Your task to perform on an android device: manage bookmarks in the chrome app Image 0: 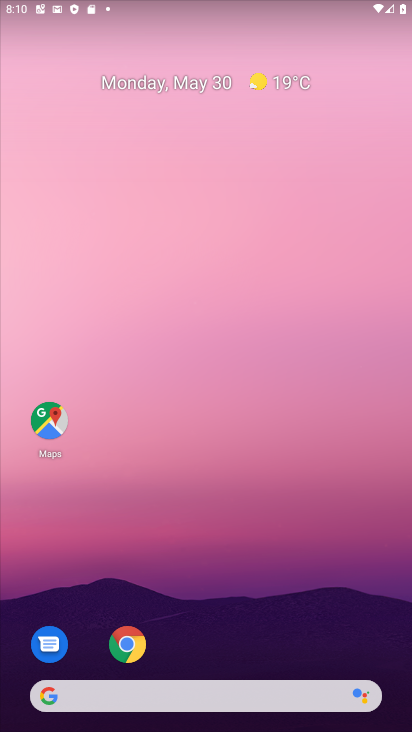
Step 0: click (232, 602)
Your task to perform on an android device: manage bookmarks in the chrome app Image 1: 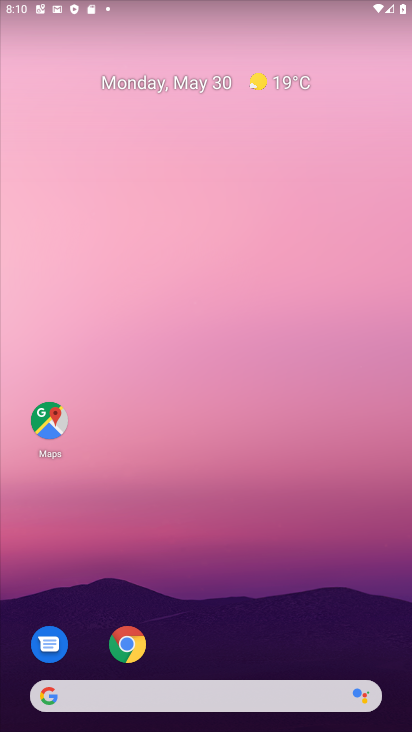
Step 1: drag from (225, 640) to (118, 2)
Your task to perform on an android device: manage bookmarks in the chrome app Image 2: 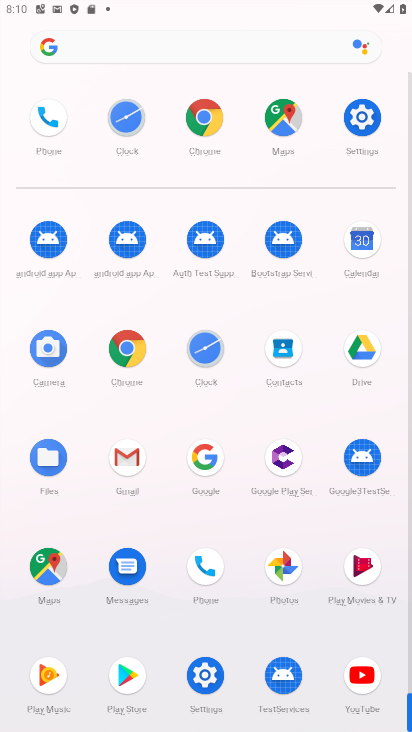
Step 2: click (130, 342)
Your task to perform on an android device: manage bookmarks in the chrome app Image 3: 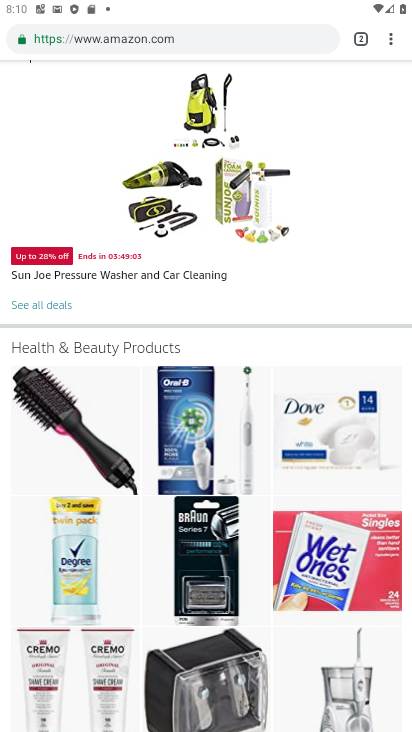
Step 3: drag from (387, 35) to (275, 162)
Your task to perform on an android device: manage bookmarks in the chrome app Image 4: 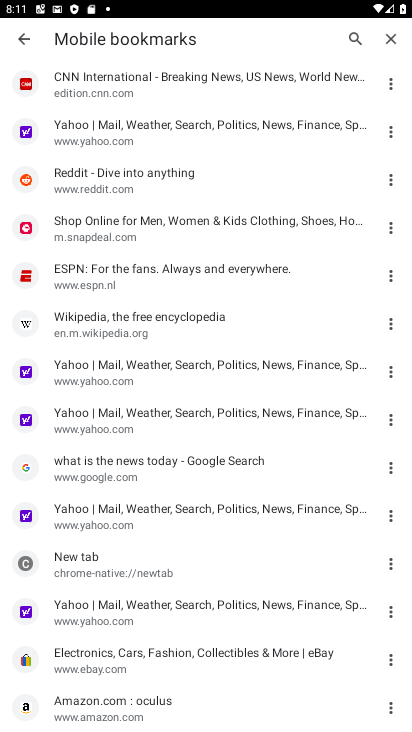
Step 4: click (389, 223)
Your task to perform on an android device: manage bookmarks in the chrome app Image 5: 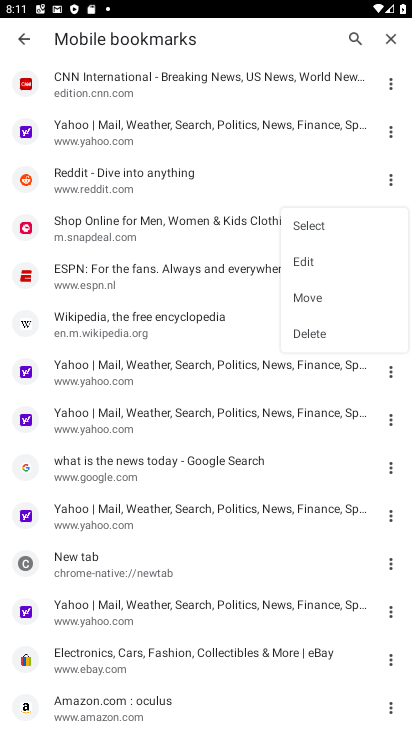
Step 5: click (313, 296)
Your task to perform on an android device: manage bookmarks in the chrome app Image 6: 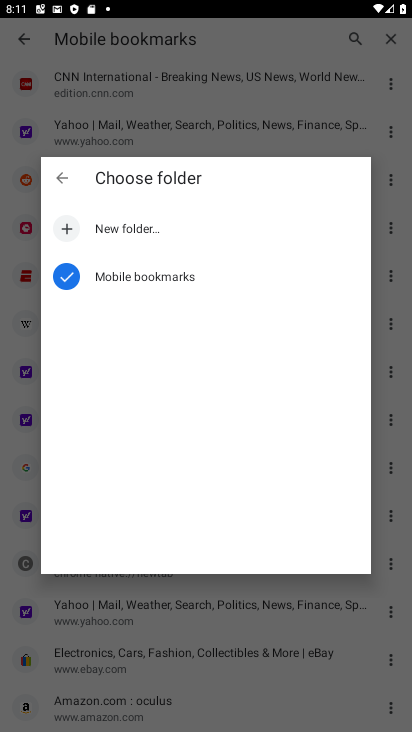
Step 6: click (59, 233)
Your task to perform on an android device: manage bookmarks in the chrome app Image 7: 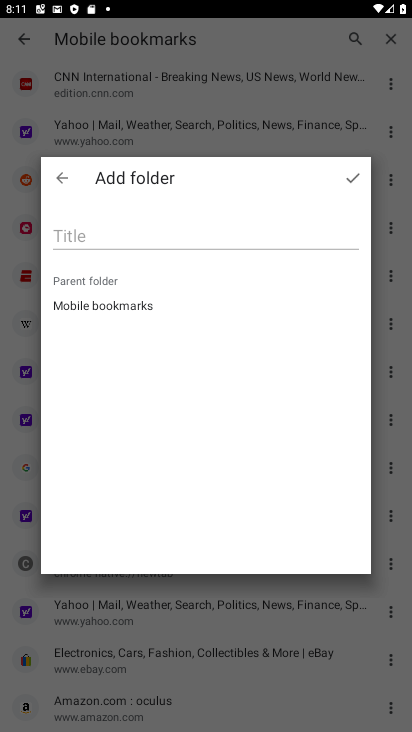
Step 7: click (159, 236)
Your task to perform on an android device: manage bookmarks in the chrome app Image 8: 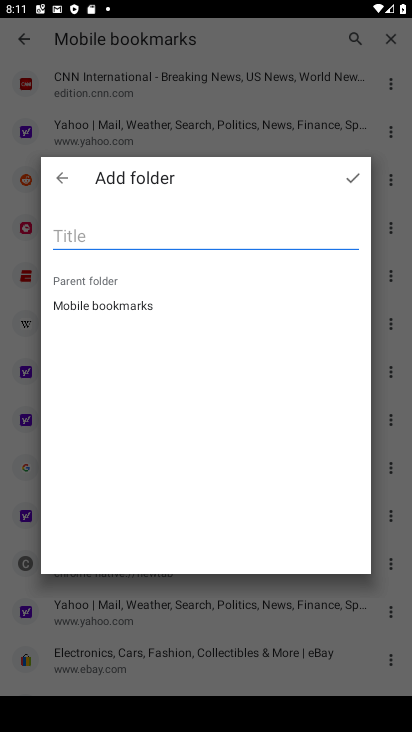
Step 8: click (350, 186)
Your task to perform on an android device: manage bookmarks in the chrome app Image 9: 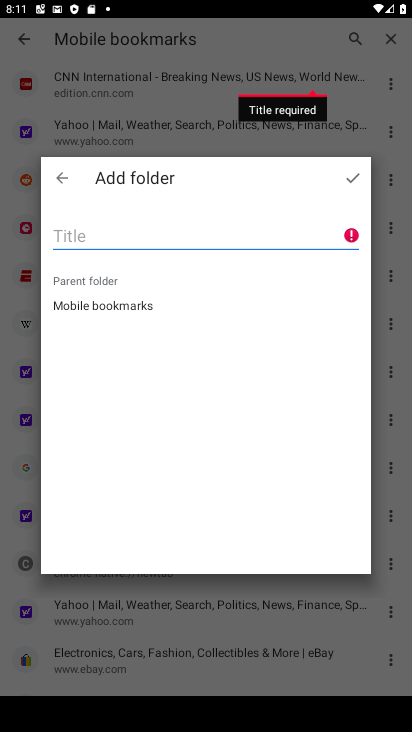
Step 9: type "bookmarks"
Your task to perform on an android device: manage bookmarks in the chrome app Image 10: 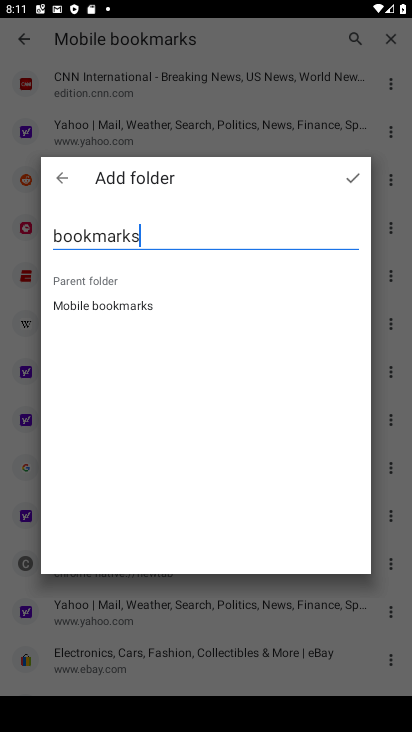
Step 10: type ""
Your task to perform on an android device: manage bookmarks in the chrome app Image 11: 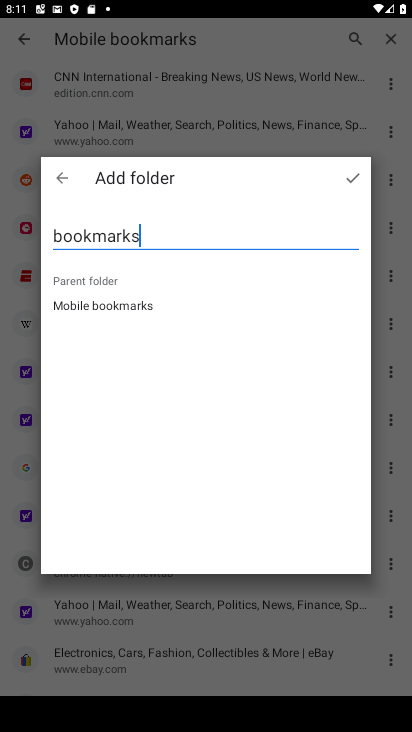
Step 11: click (346, 168)
Your task to perform on an android device: manage bookmarks in the chrome app Image 12: 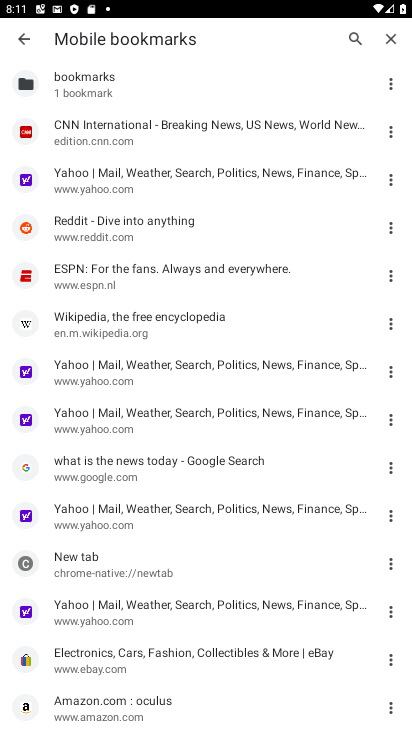
Step 12: task complete